Your task to perform on an android device: Go to Yahoo.com Image 0: 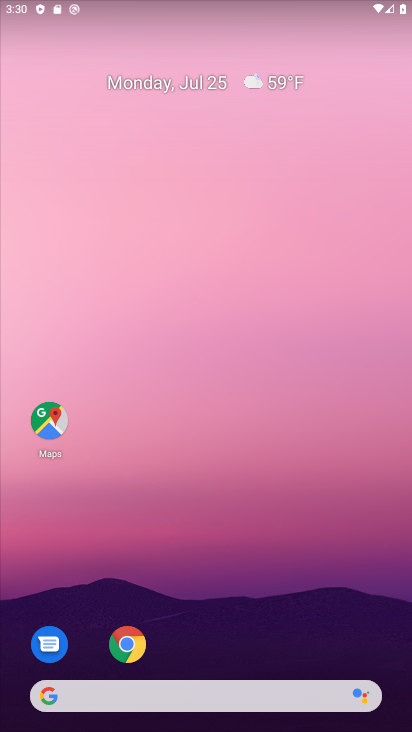
Step 0: click (125, 646)
Your task to perform on an android device: Go to Yahoo.com Image 1: 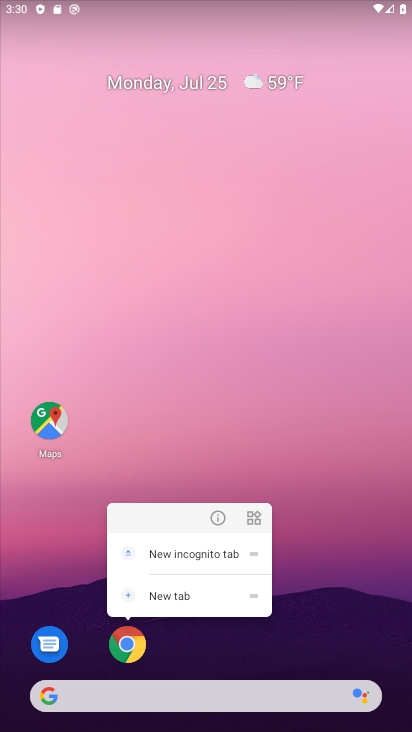
Step 1: click (131, 646)
Your task to perform on an android device: Go to Yahoo.com Image 2: 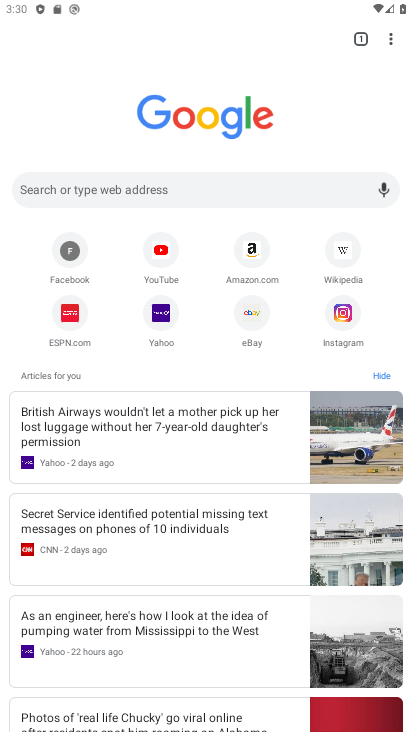
Step 2: click (165, 317)
Your task to perform on an android device: Go to Yahoo.com Image 3: 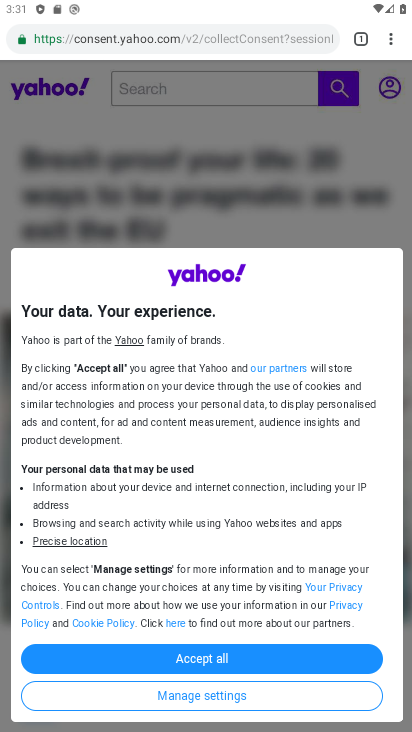
Step 3: task complete